Your task to perform on an android device: Open notification settings Image 0: 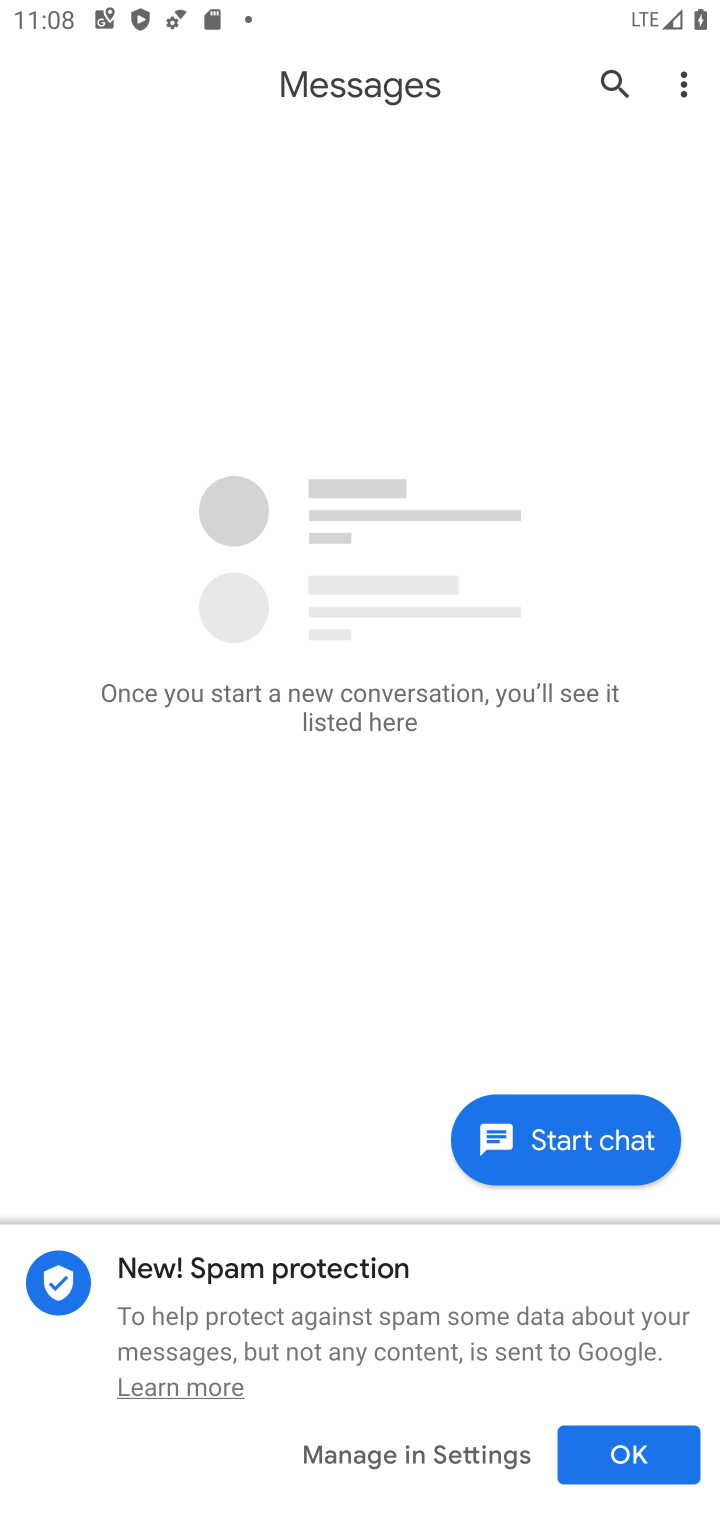
Step 0: press back button
Your task to perform on an android device: Open notification settings Image 1: 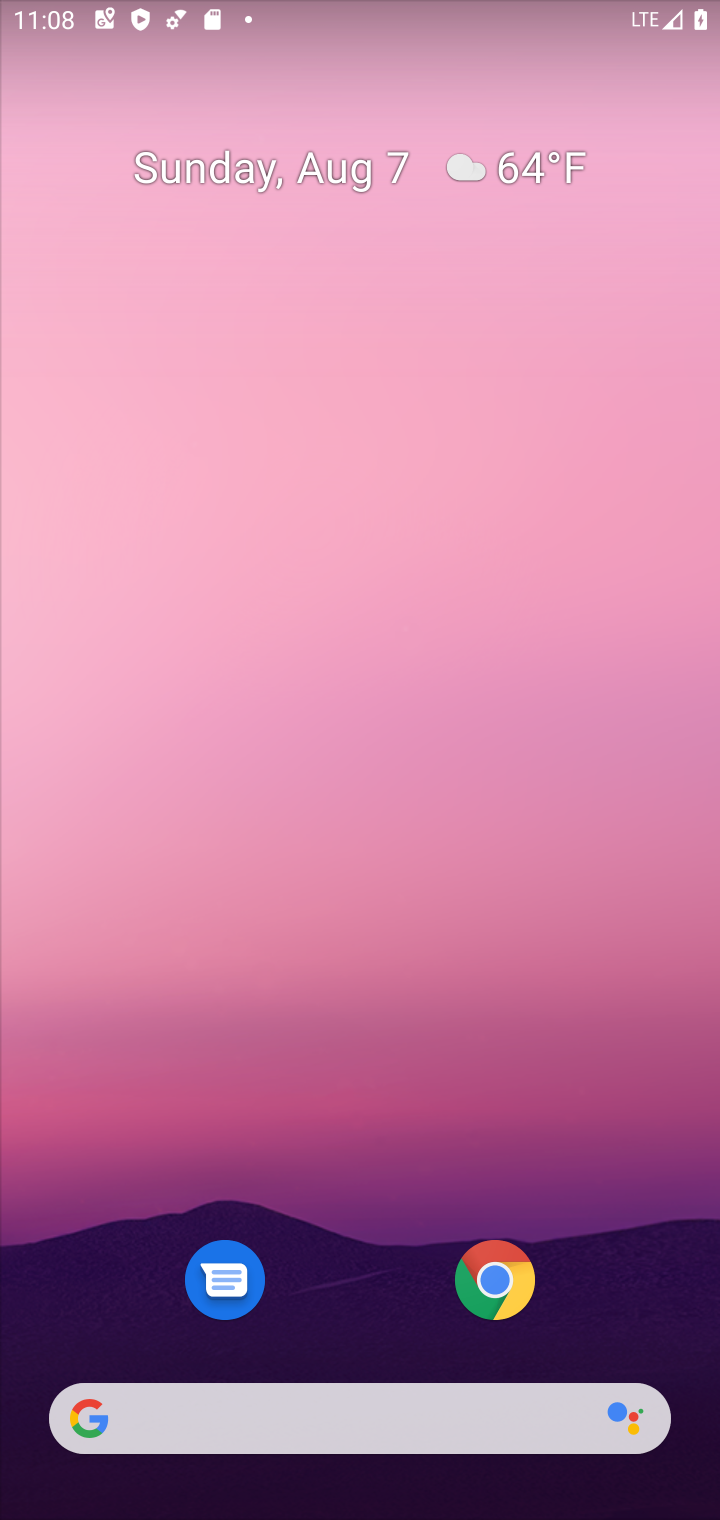
Step 1: drag from (340, 993) to (420, 197)
Your task to perform on an android device: Open notification settings Image 2: 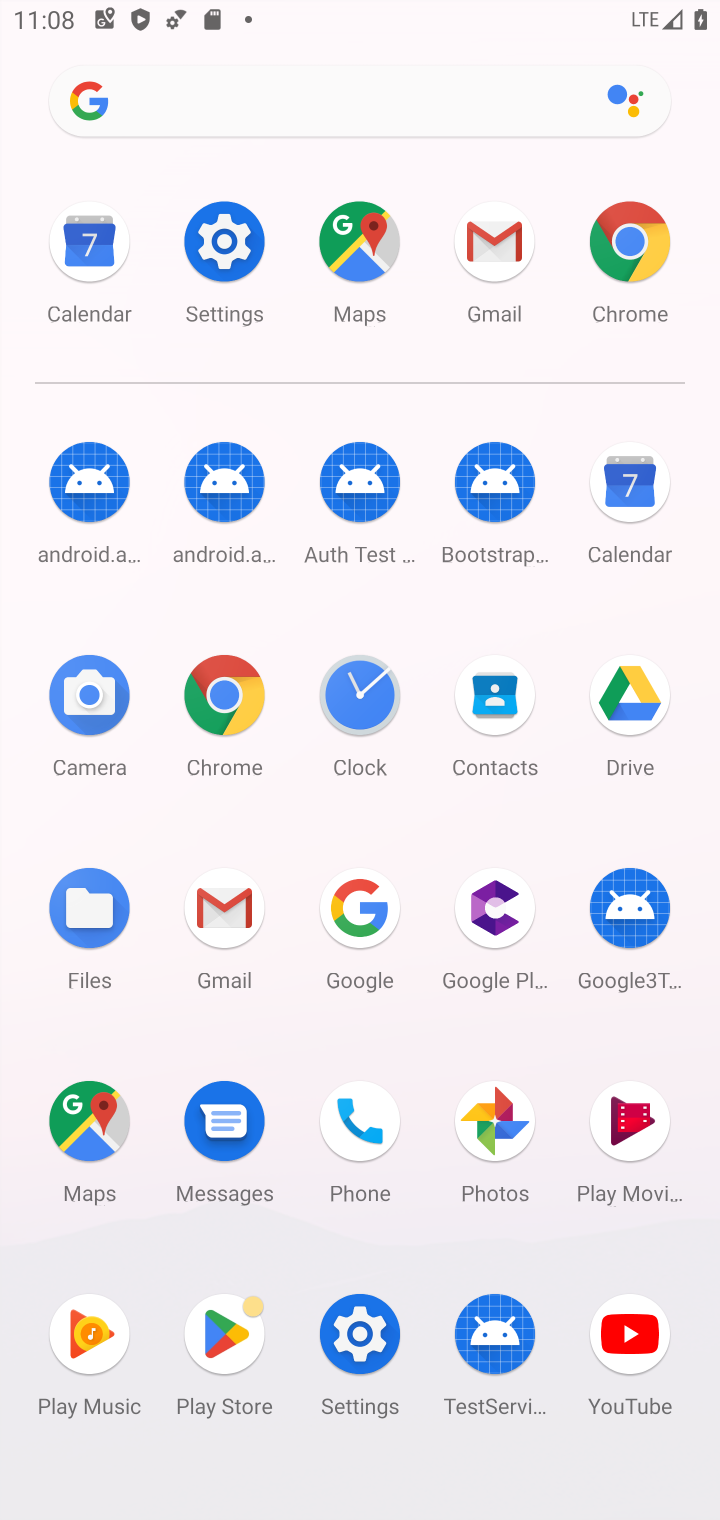
Step 2: click (220, 231)
Your task to perform on an android device: Open notification settings Image 3: 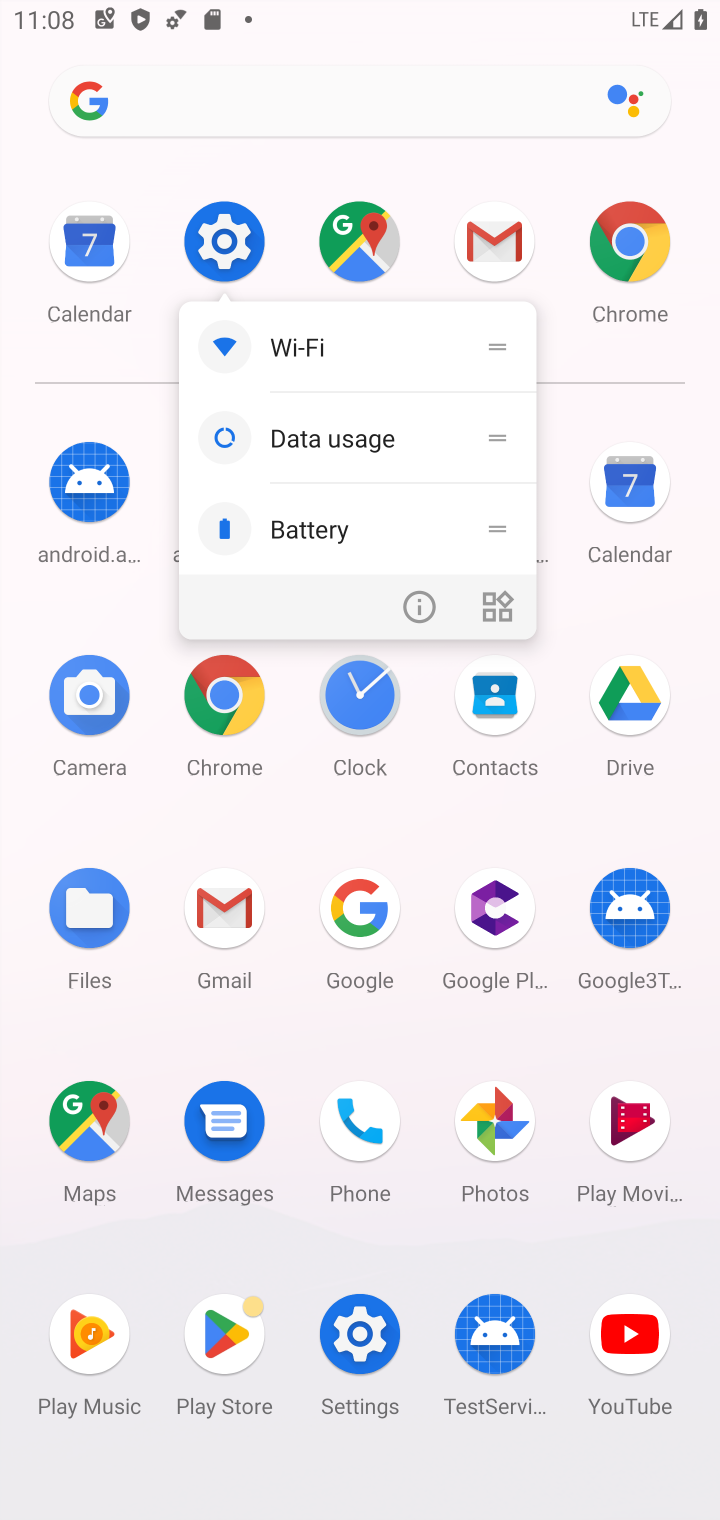
Step 3: click (241, 253)
Your task to perform on an android device: Open notification settings Image 4: 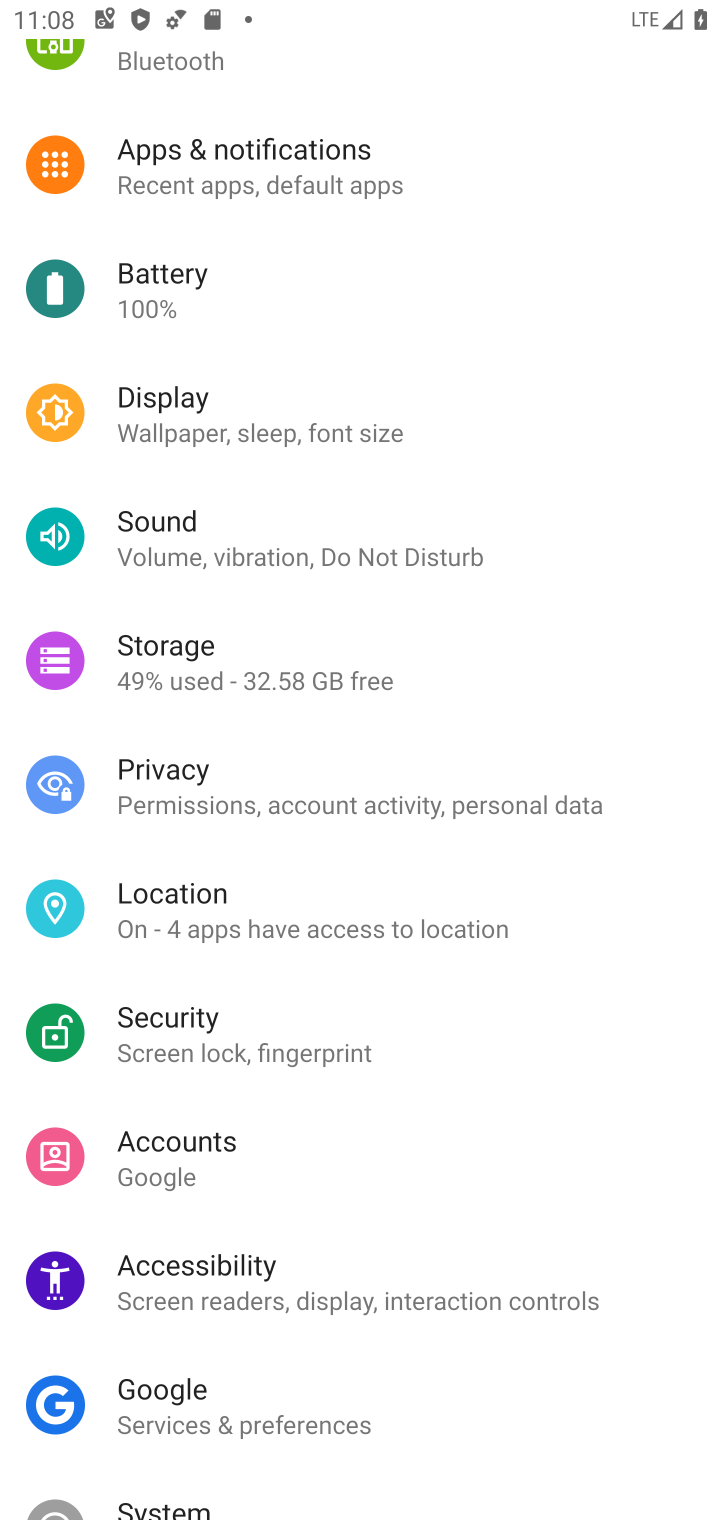
Step 4: drag from (426, 720) to (423, 1375)
Your task to perform on an android device: Open notification settings Image 5: 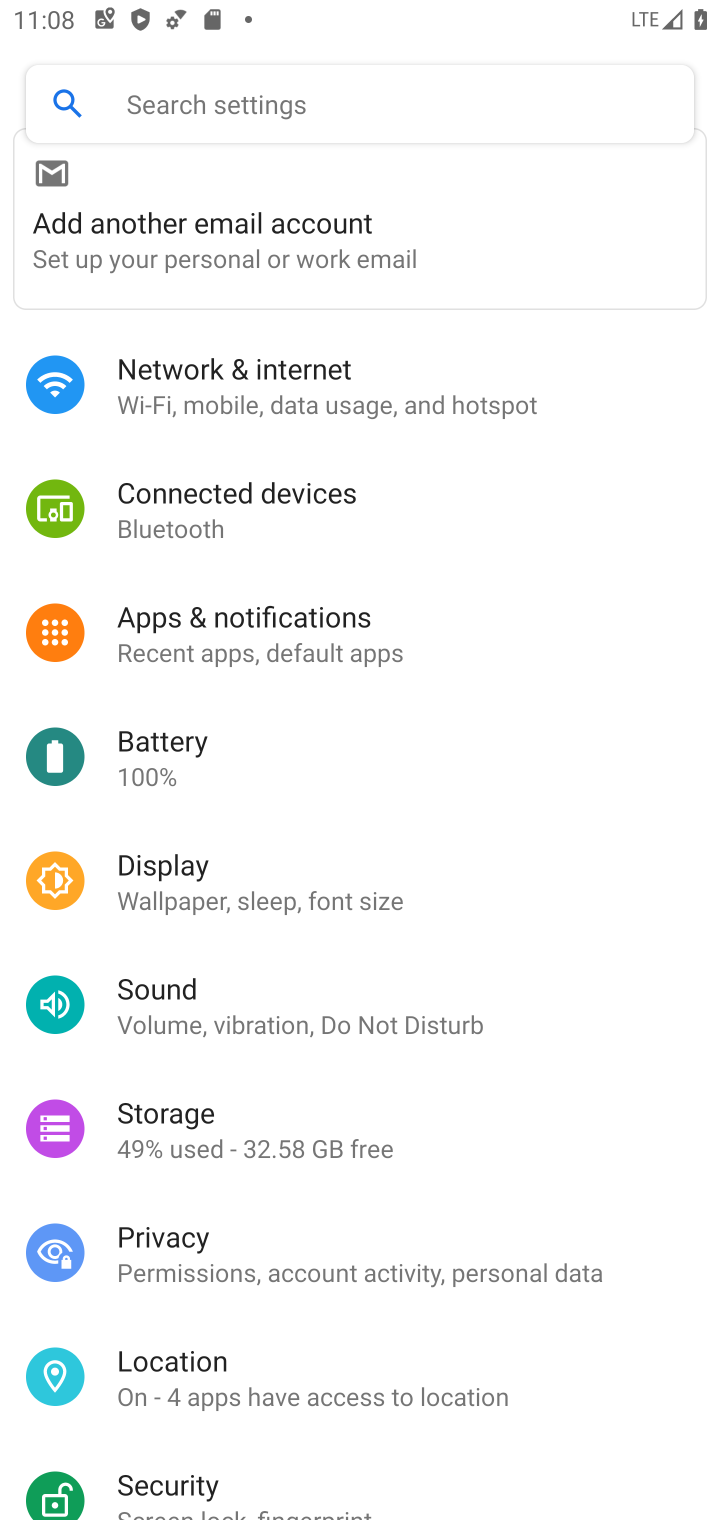
Step 5: click (265, 590)
Your task to perform on an android device: Open notification settings Image 6: 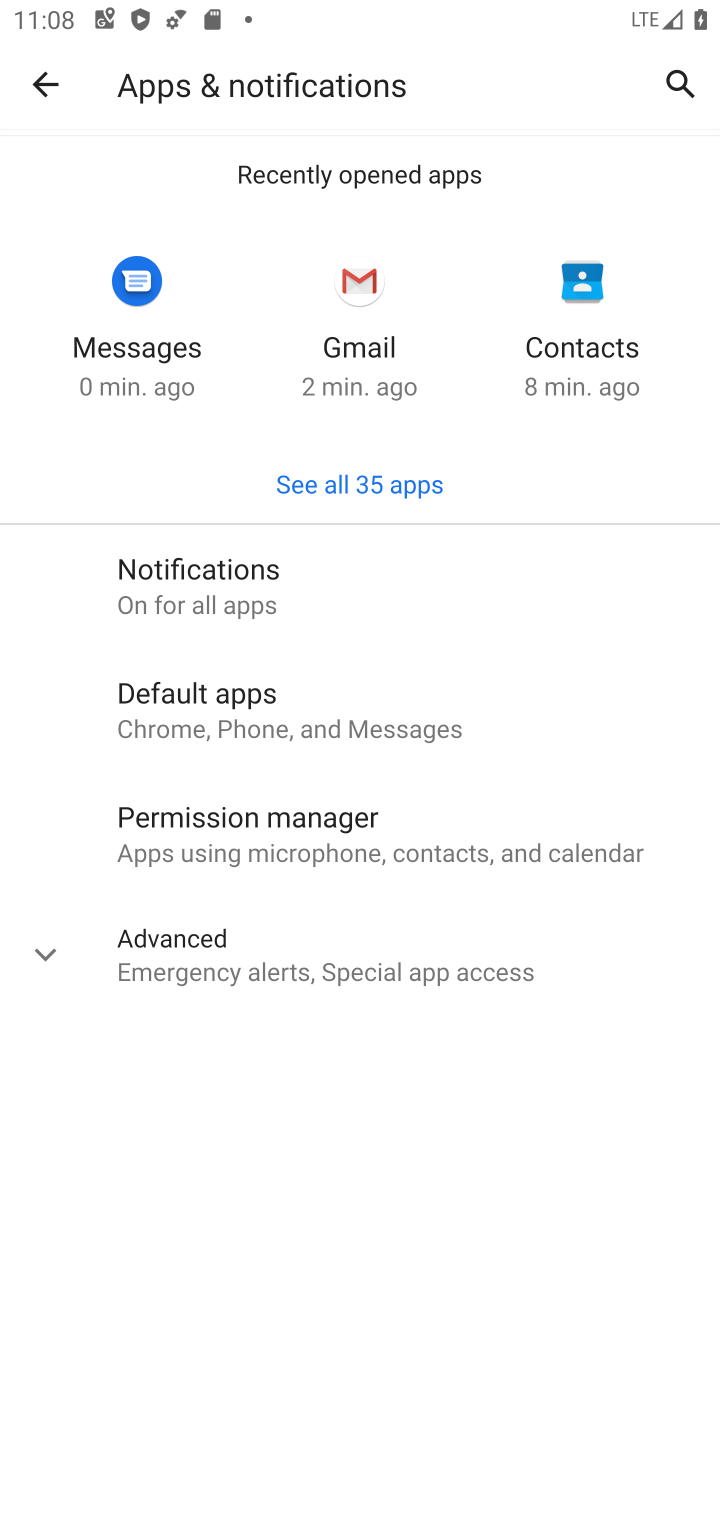
Step 6: task complete